Your task to perform on an android device: change the clock display to analog Image 0: 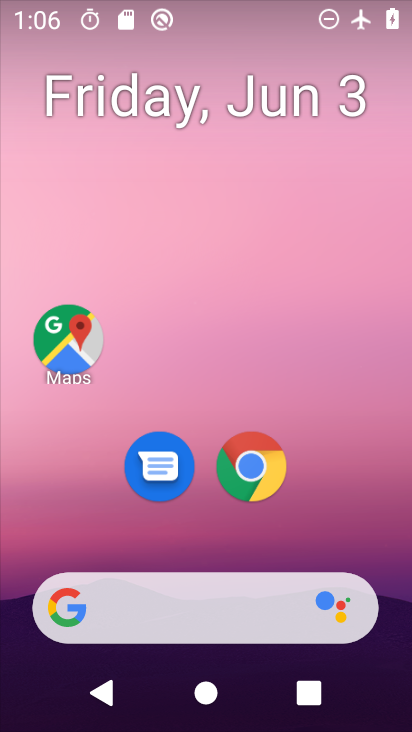
Step 0: drag from (212, 550) to (206, 192)
Your task to perform on an android device: change the clock display to analog Image 1: 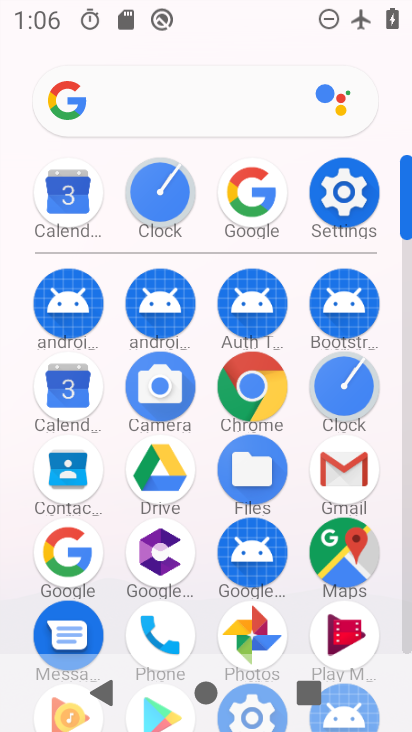
Step 1: click (348, 377)
Your task to perform on an android device: change the clock display to analog Image 2: 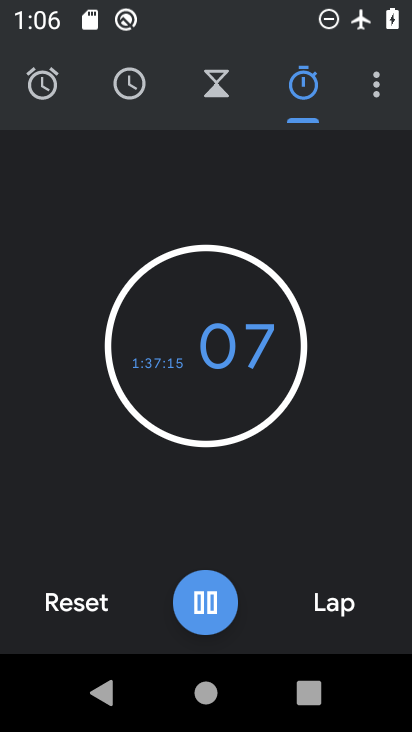
Step 2: click (375, 75)
Your task to perform on an android device: change the clock display to analog Image 3: 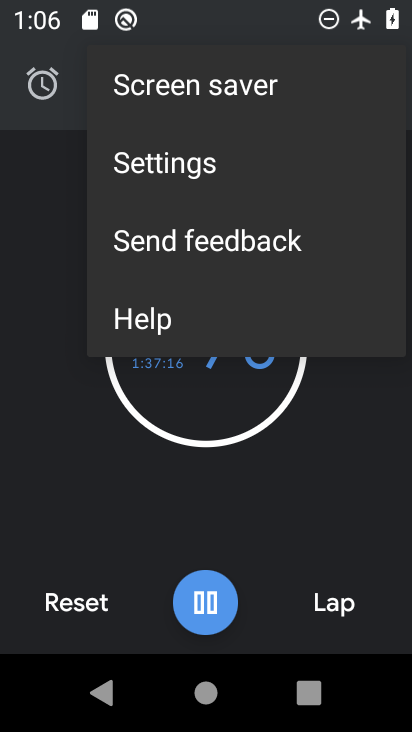
Step 3: click (233, 143)
Your task to perform on an android device: change the clock display to analog Image 4: 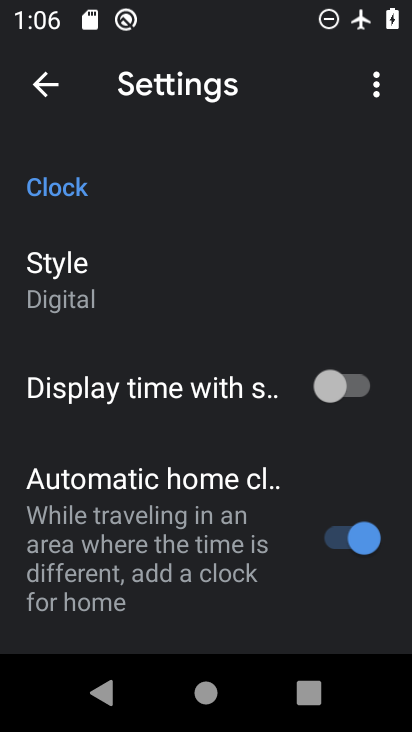
Step 4: click (88, 294)
Your task to perform on an android device: change the clock display to analog Image 5: 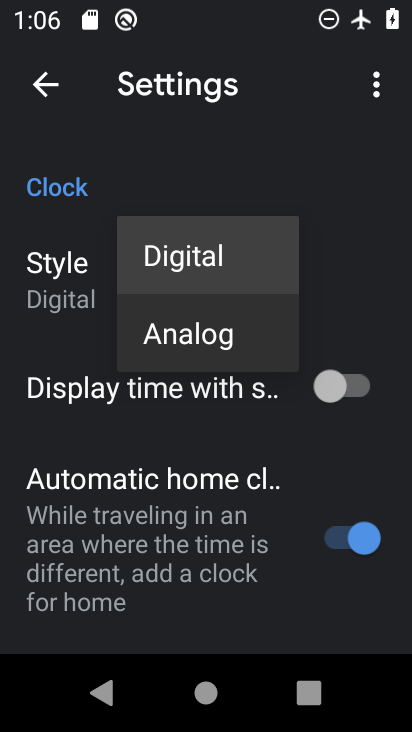
Step 5: click (167, 341)
Your task to perform on an android device: change the clock display to analog Image 6: 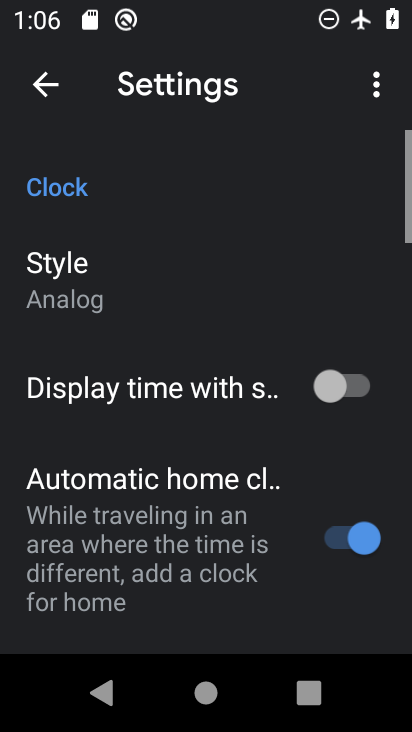
Step 6: task complete